Your task to perform on an android device: Check the news Image 0: 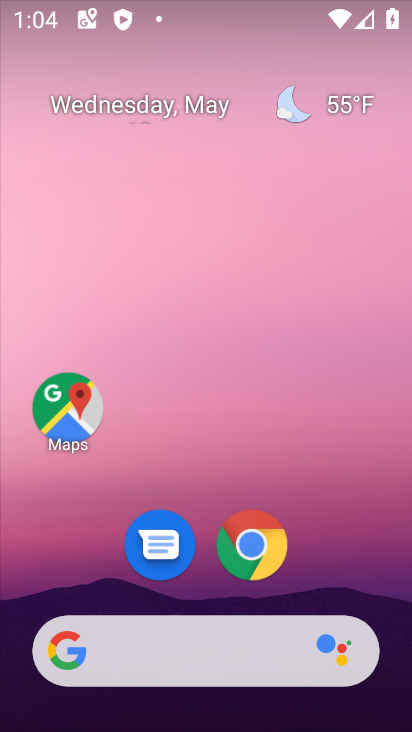
Step 0: drag from (5, 285) to (411, 294)
Your task to perform on an android device: Check the news Image 1: 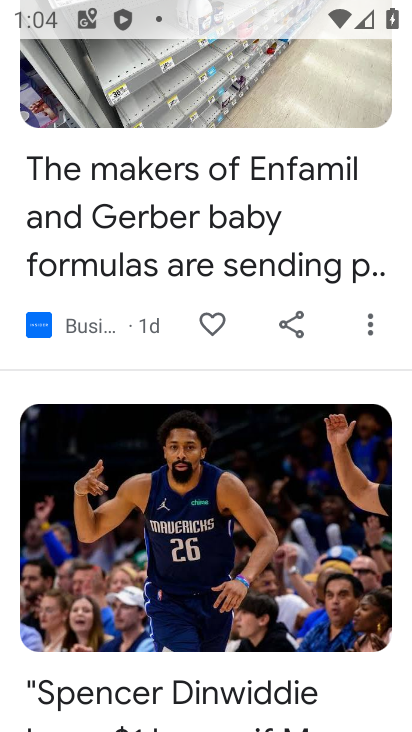
Step 1: task complete